Your task to perform on an android device: remove spam from my inbox in the gmail app Image 0: 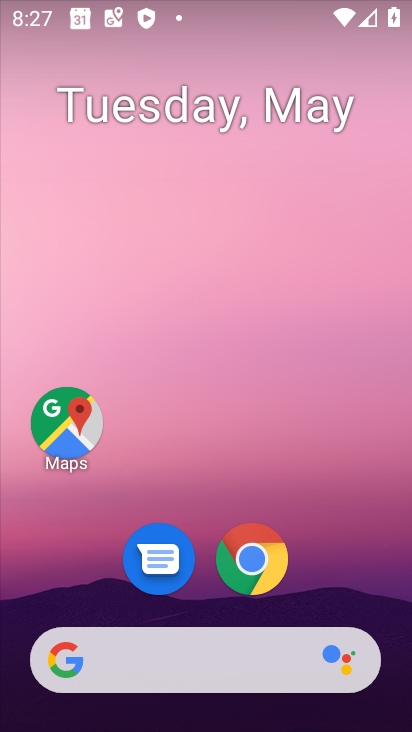
Step 0: drag from (212, 608) to (272, 39)
Your task to perform on an android device: remove spam from my inbox in the gmail app Image 1: 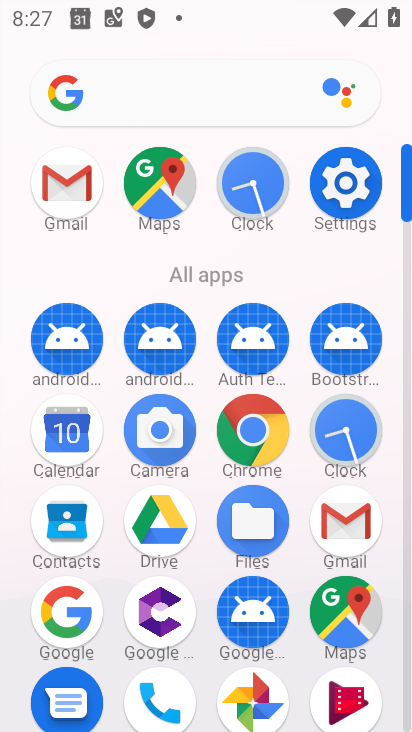
Step 1: click (64, 181)
Your task to perform on an android device: remove spam from my inbox in the gmail app Image 2: 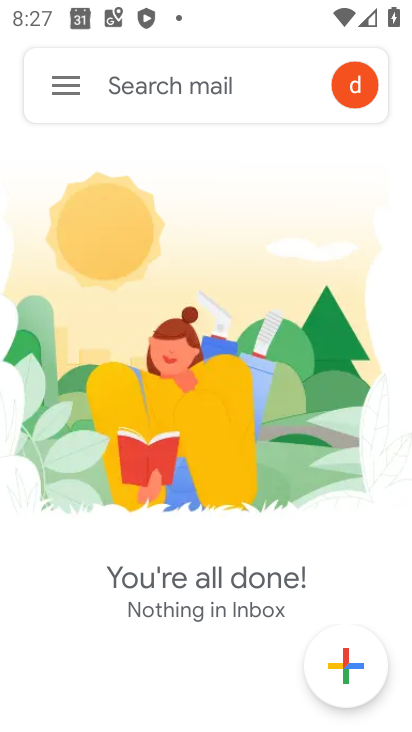
Step 2: click (65, 84)
Your task to perform on an android device: remove spam from my inbox in the gmail app Image 3: 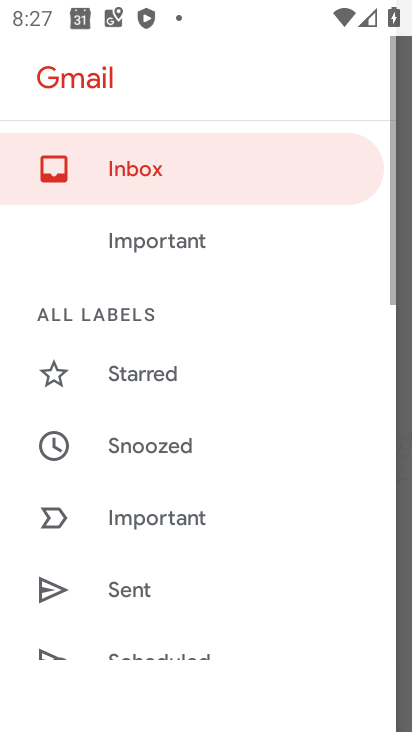
Step 3: drag from (155, 650) to (234, 171)
Your task to perform on an android device: remove spam from my inbox in the gmail app Image 4: 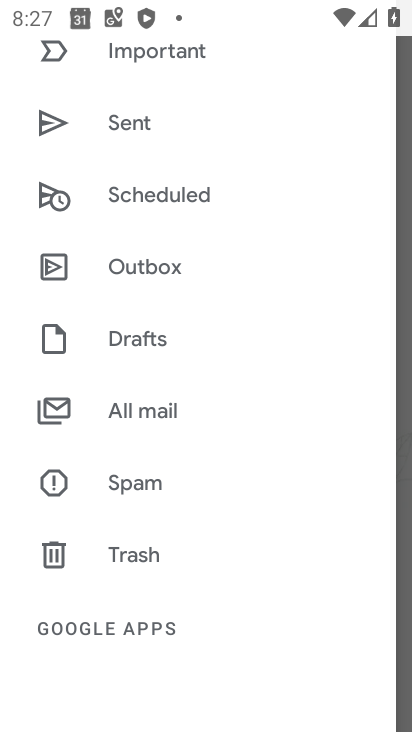
Step 4: click (143, 483)
Your task to perform on an android device: remove spam from my inbox in the gmail app Image 5: 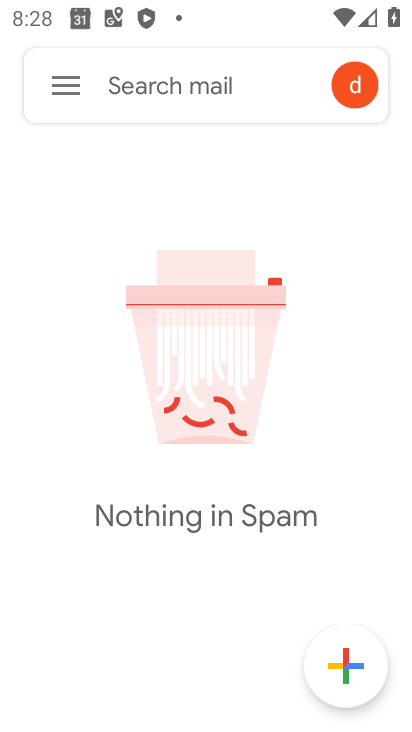
Step 5: task complete